Your task to perform on an android device: Open calendar and show me the first week of next month Image 0: 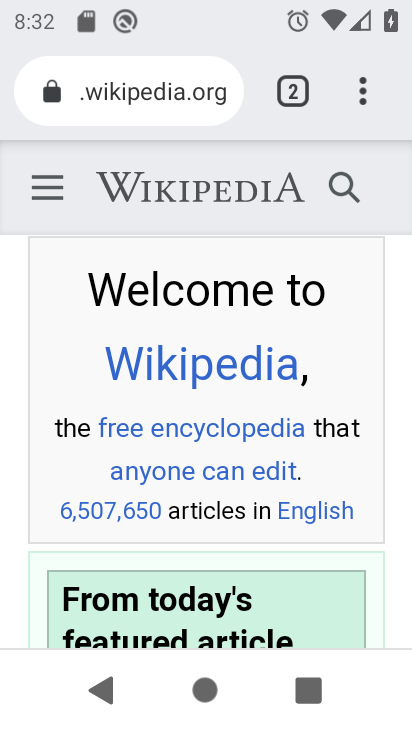
Step 0: press home button
Your task to perform on an android device: Open calendar and show me the first week of next month Image 1: 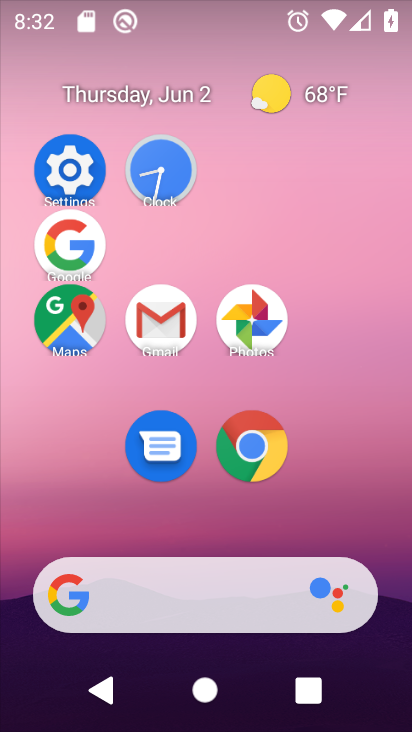
Step 1: drag from (294, 518) to (294, 92)
Your task to perform on an android device: Open calendar and show me the first week of next month Image 2: 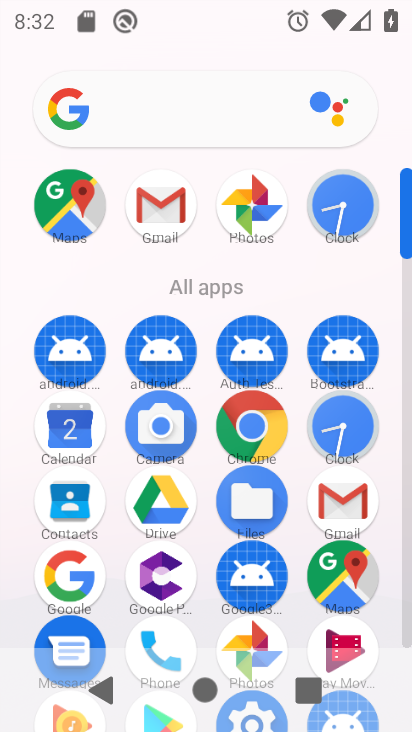
Step 2: drag from (69, 428) to (409, 215)
Your task to perform on an android device: Open calendar and show me the first week of next month Image 3: 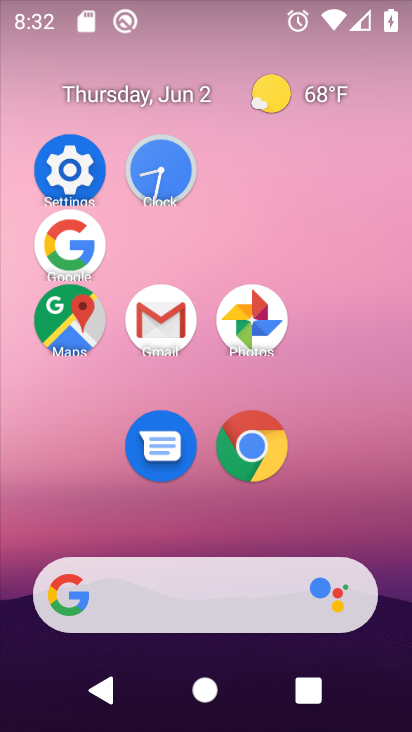
Step 3: drag from (364, 446) to (370, 44)
Your task to perform on an android device: Open calendar and show me the first week of next month Image 4: 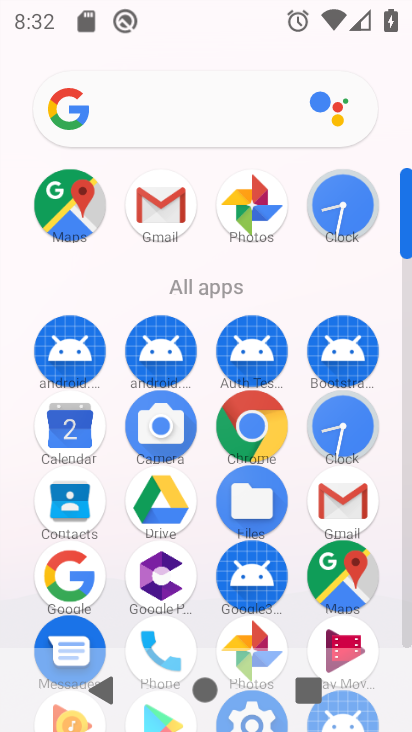
Step 4: drag from (65, 447) to (220, 194)
Your task to perform on an android device: Open calendar and show me the first week of next month Image 5: 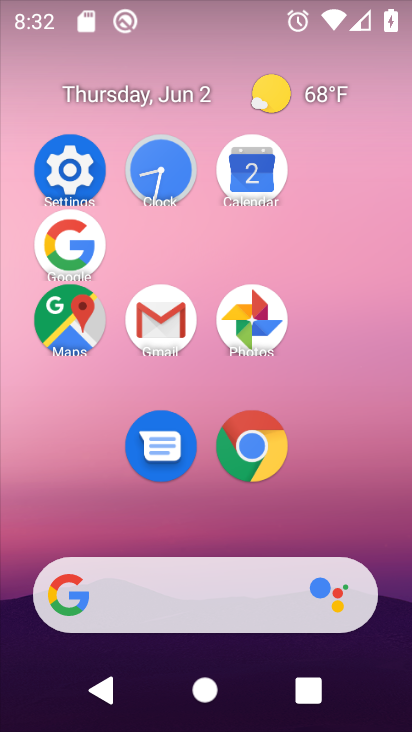
Step 5: click (260, 174)
Your task to perform on an android device: Open calendar and show me the first week of next month Image 6: 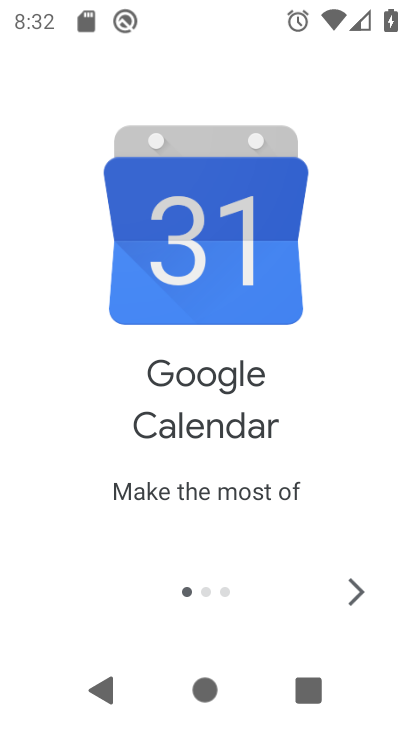
Step 6: click (364, 595)
Your task to perform on an android device: Open calendar and show me the first week of next month Image 7: 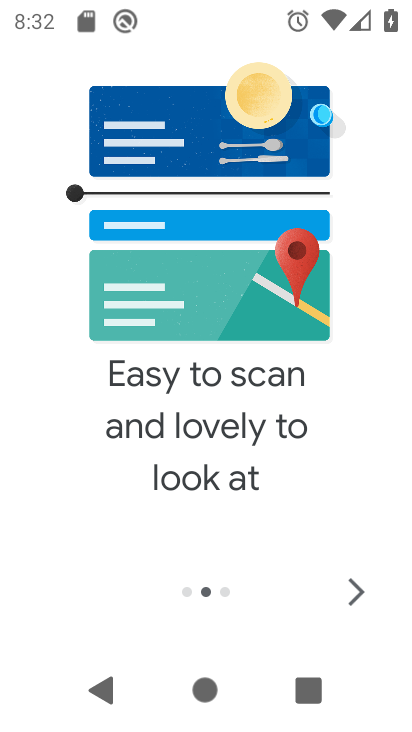
Step 7: click (364, 595)
Your task to perform on an android device: Open calendar and show me the first week of next month Image 8: 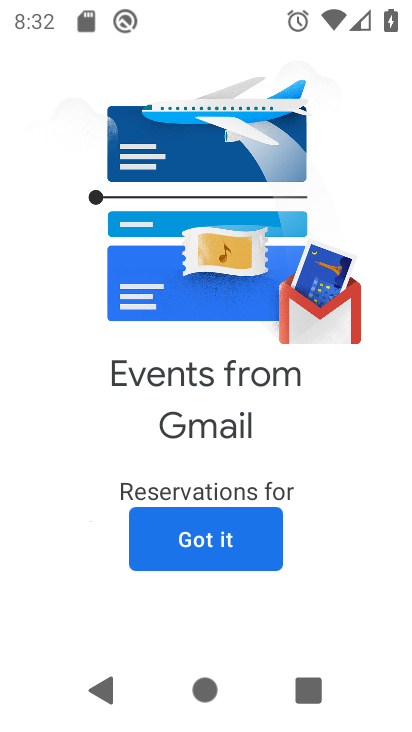
Step 8: click (230, 527)
Your task to perform on an android device: Open calendar and show me the first week of next month Image 9: 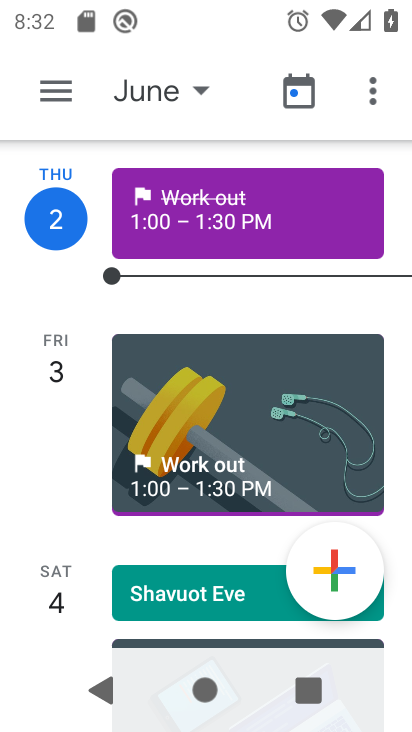
Step 9: click (171, 98)
Your task to perform on an android device: Open calendar and show me the first week of next month Image 10: 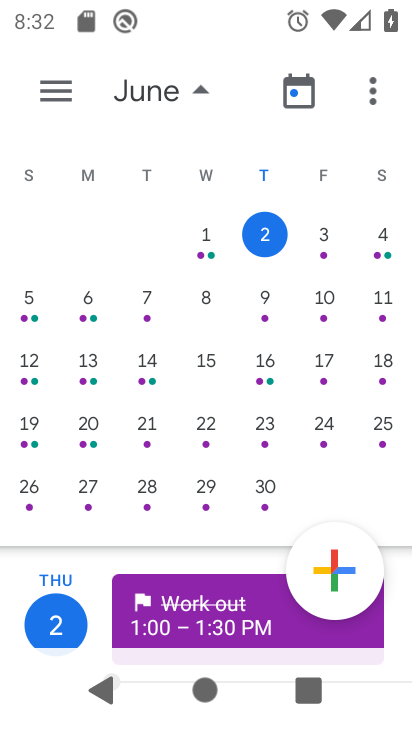
Step 10: drag from (397, 398) to (5, 306)
Your task to perform on an android device: Open calendar and show me the first week of next month Image 11: 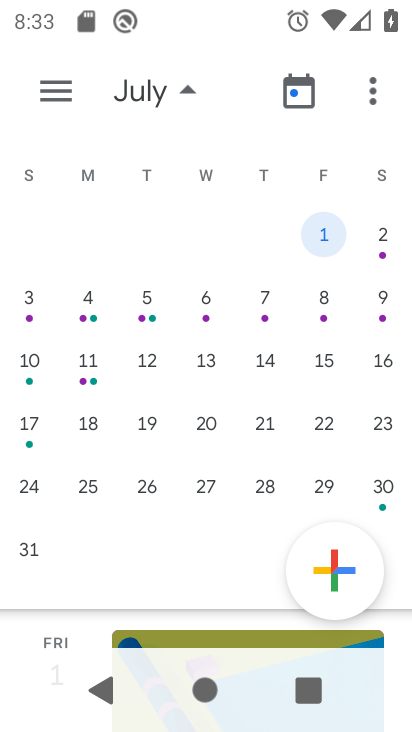
Step 11: click (53, 90)
Your task to perform on an android device: Open calendar and show me the first week of next month Image 12: 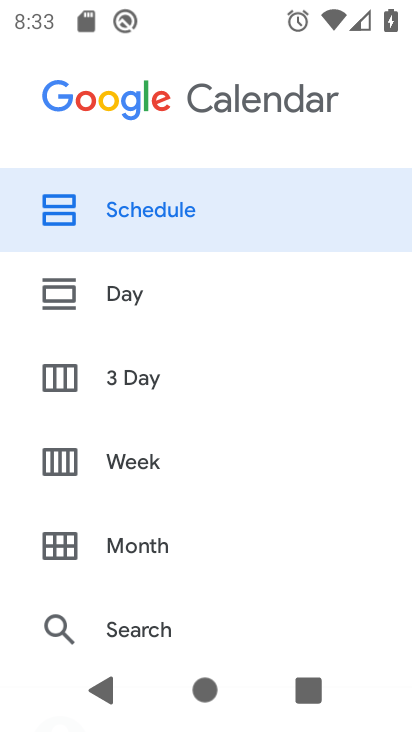
Step 12: click (139, 464)
Your task to perform on an android device: Open calendar and show me the first week of next month Image 13: 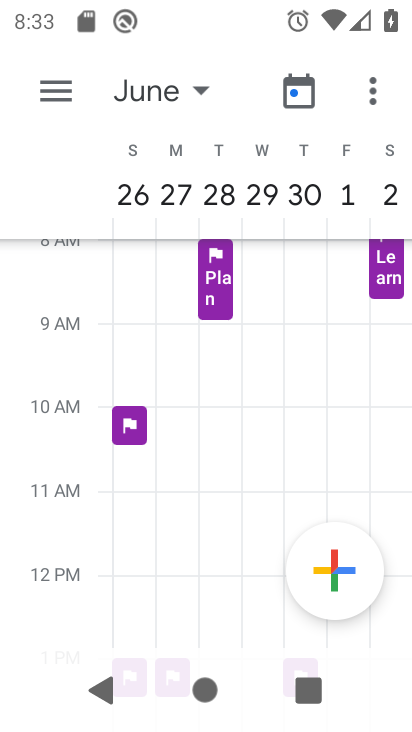
Step 13: task complete